Your task to perform on an android device: turn off sleep mode Image 0: 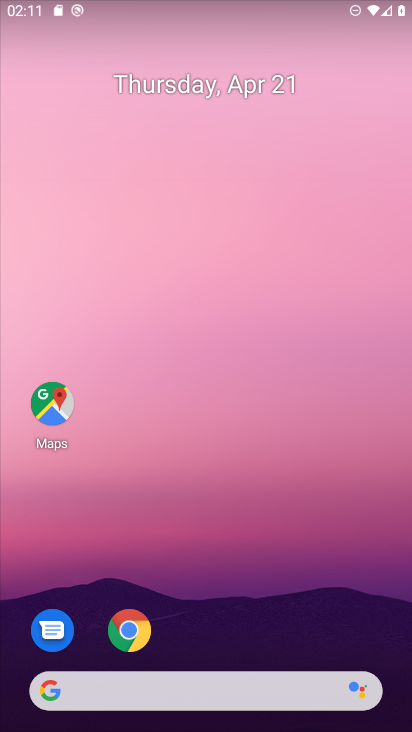
Step 0: drag from (268, 610) to (299, 29)
Your task to perform on an android device: turn off sleep mode Image 1: 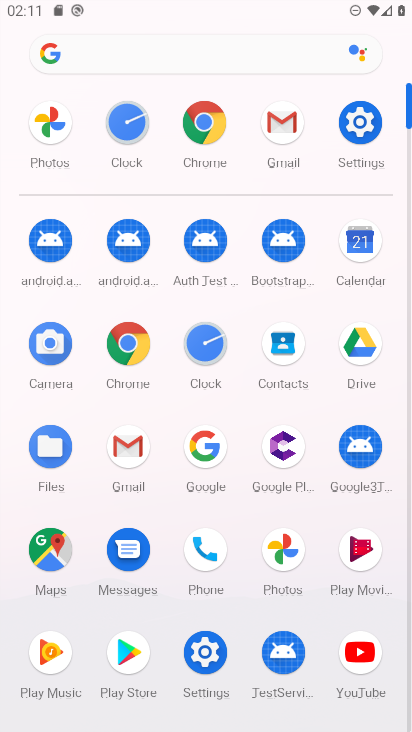
Step 1: click (193, 647)
Your task to perform on an android device: turn off sleep mode Image 2: 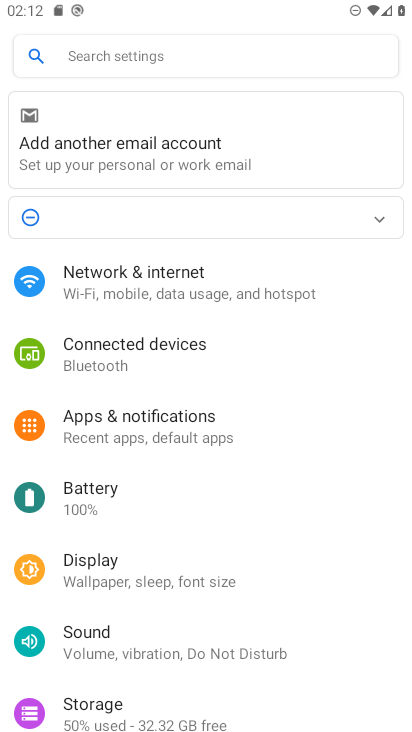
Step 2: click (200, 566)
Your task to perform on an android device: turn off sleep mode Image 3: 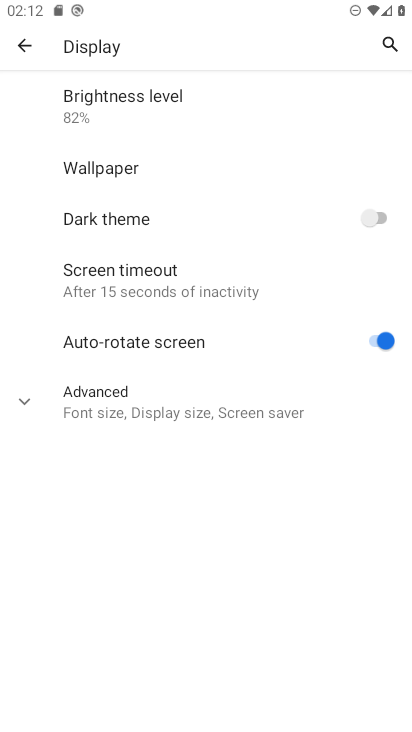
Step 3: click (249, 274)
Your task to perform on an android device: turn off sleep mode Image 4: 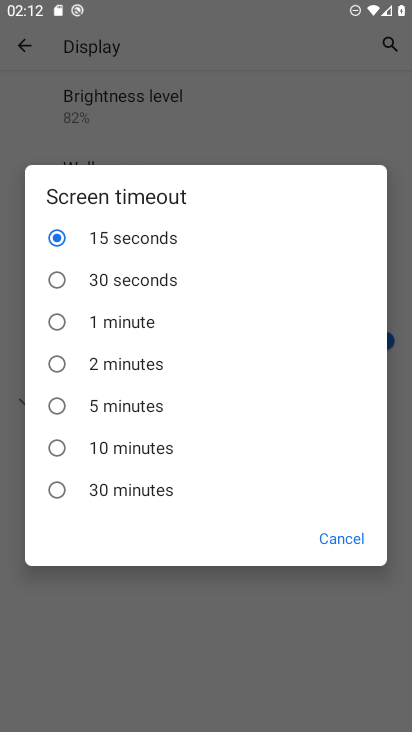
Step 4: click (122, 387)
Your task to perform on an android device: turn off sleep mode Image 5: 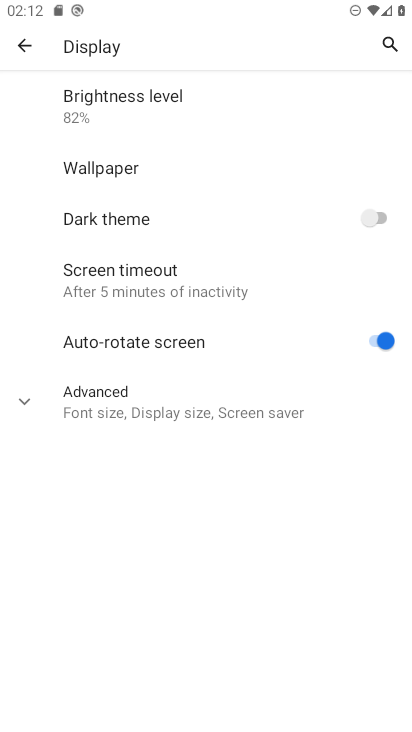
Step 5: task complete